Your task to perform on an android device: turn off translation in the chrome app Image 0: 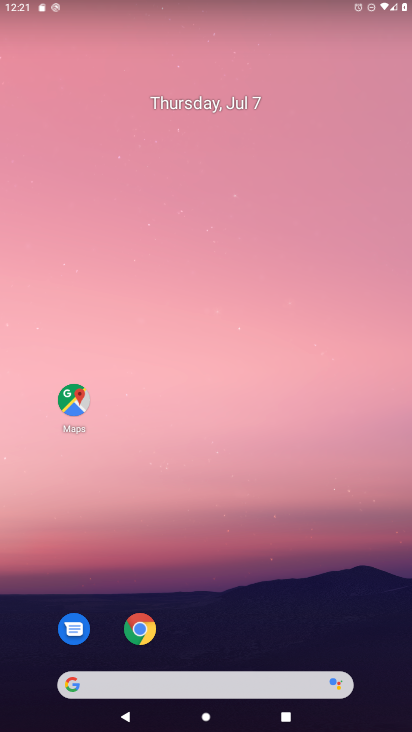
Step 0: click (155, 630)
Your task to perform on an android device: turn off translation in the chrome app Image 1: 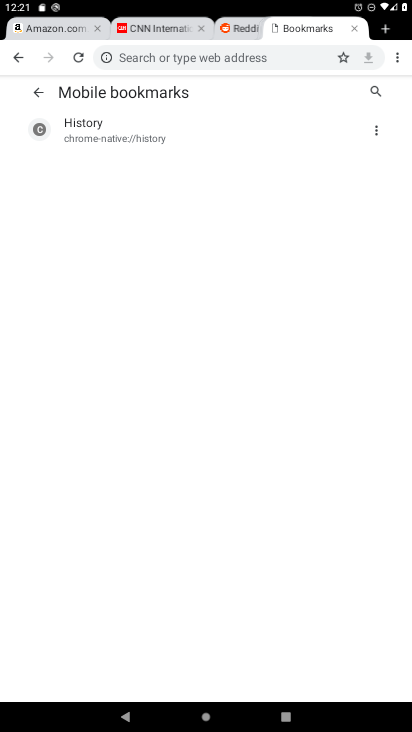
Step 1: click (388, 55)
Your task to perform on an android device: turn off translation in the chrome app Image 2: 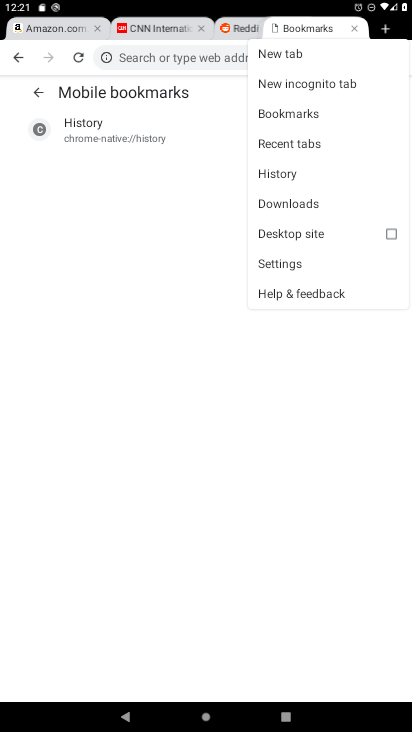
Step 2: click (311, 262)
Your task to perform on an android device: turn off translation in the chrome app Image 3: 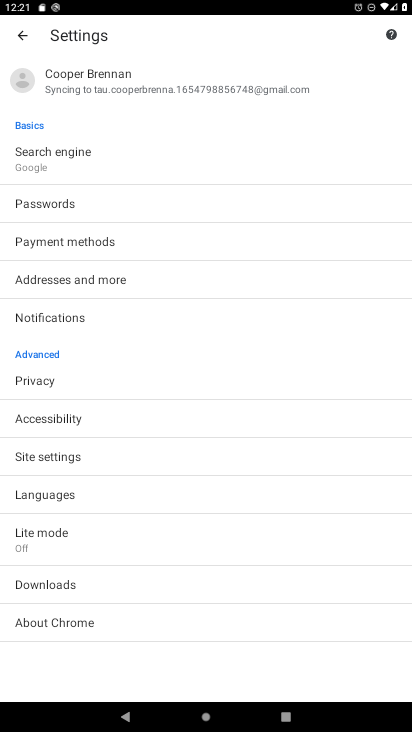
Step 3: click (66, 504)
Your task to perform on an android device: turn off translation in the chrome app Image 4: 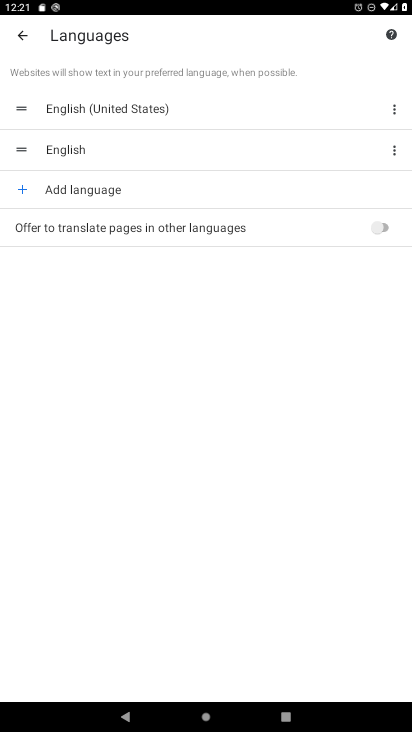
Step 4: task complete